Your task to perform on an android device: check storage Image 0: 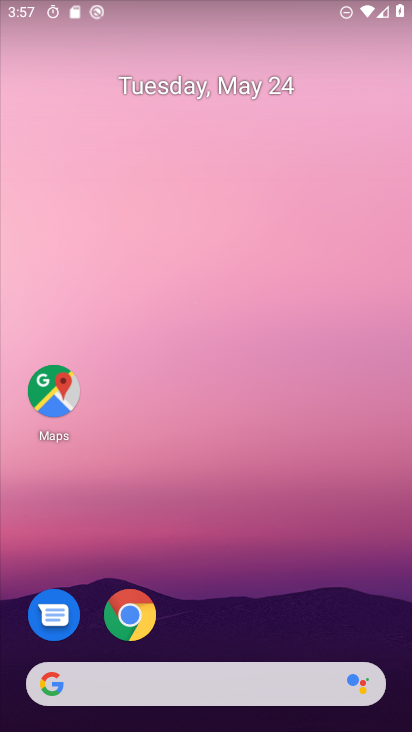
Step 0: drag from (230, 608) to (310, 111)
Your task to perform on an android device: check storage Image 1: 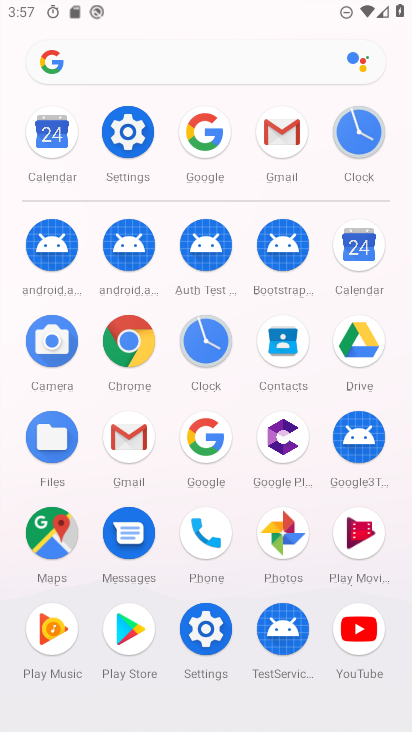
Step 1: click (136, 140)
Your task to perform on an android device: check storage Image 2: 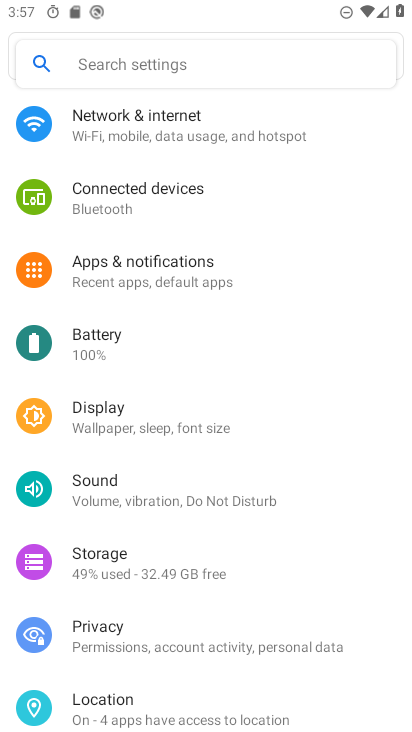
Step 2: drag from (172, 555) to (200, 465)
Your task to perform on an android device: check storage Image 3: 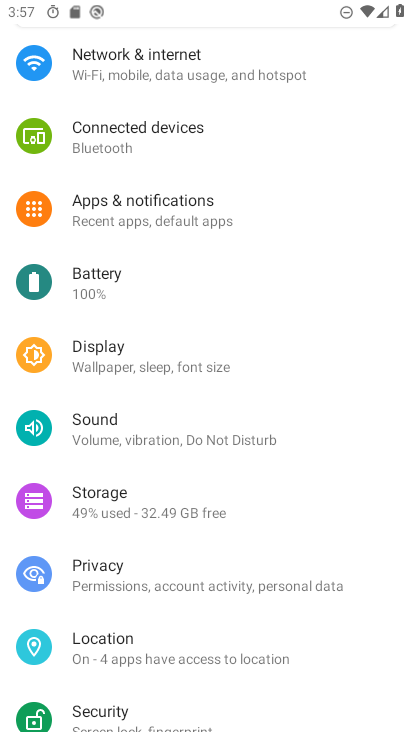
Step 3: click (159, 510)
Your task to perform on an android device: check storage Image 4: 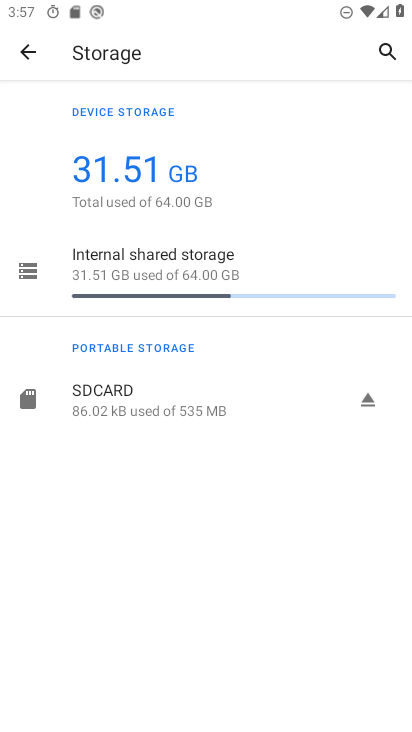
Step 4: click (204, 274)
Your task to perform on an android device: check storage Image 5: 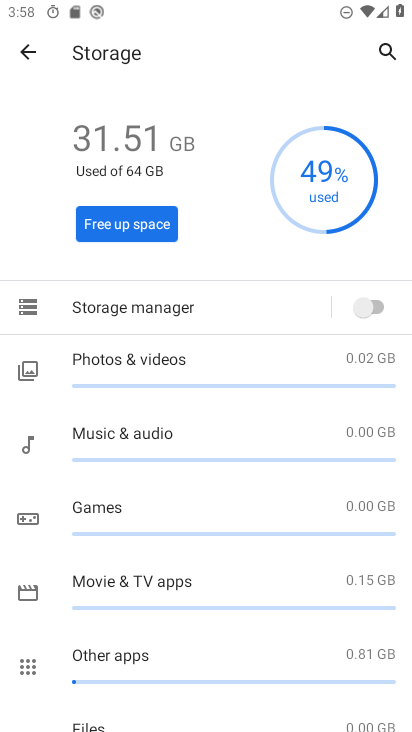
Step 5: task complete